Your task to perform on an android device: toggle show notifications on the lock screen Image 0: 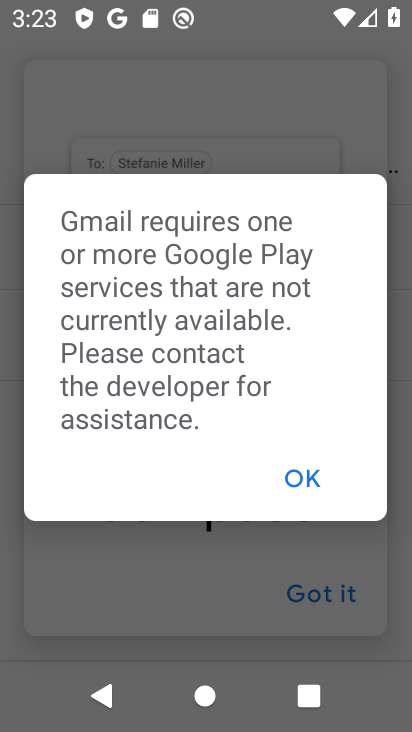
Step 0: click (292, 479)
Your task to perform on an android device: toggle show notifications on the lock screen Image 1: 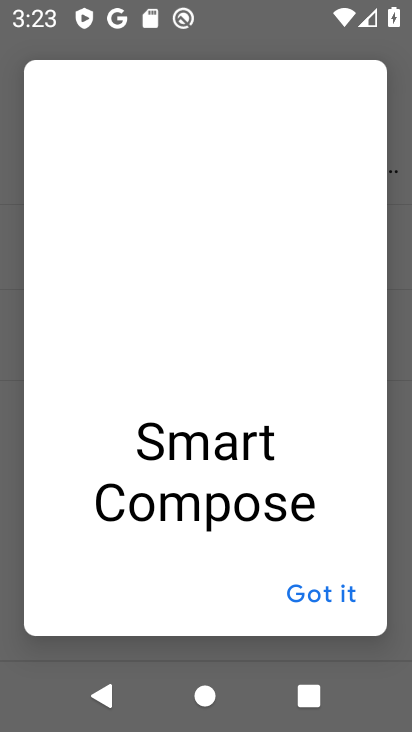
Step 1: press back button
Your task to perform on an android device: toggle show notifications on the lock screen Image 2: 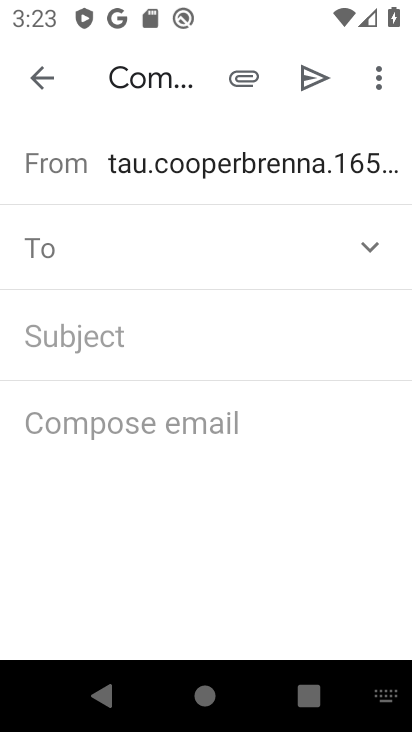
Step 2: press home button
Your task to perform on an android device: toggle show notifications on the lock screen Image 3: 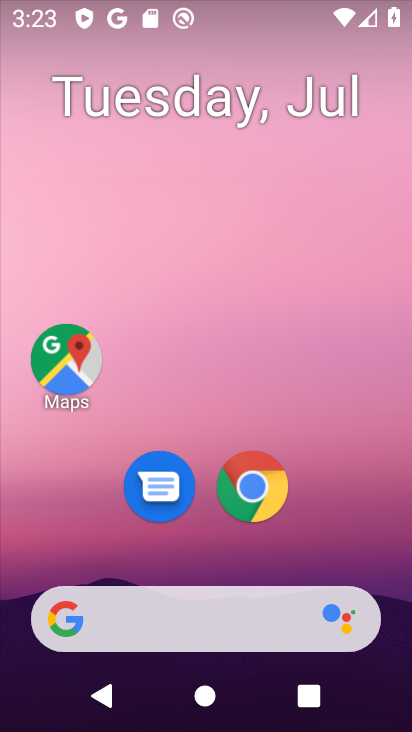
Step 3: drag from (145, 574) to (266, 5)
Your task to perform on an android device: toggle show notifications on the lock screen Image 4: 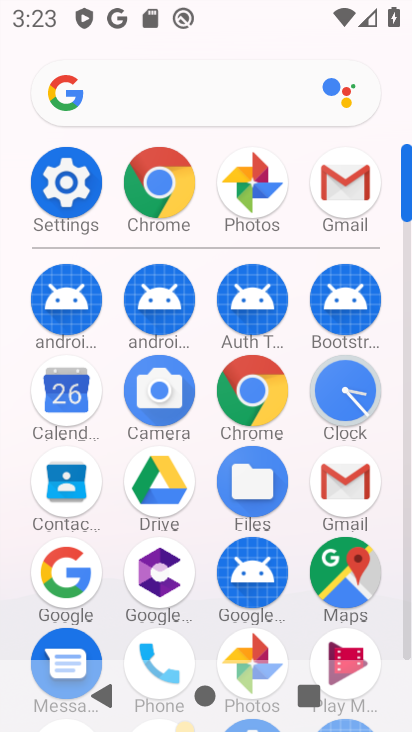
Step 4: click (78, 186)
Your task to perform on an android device: toggle show notifications on the lock screen Image 5: 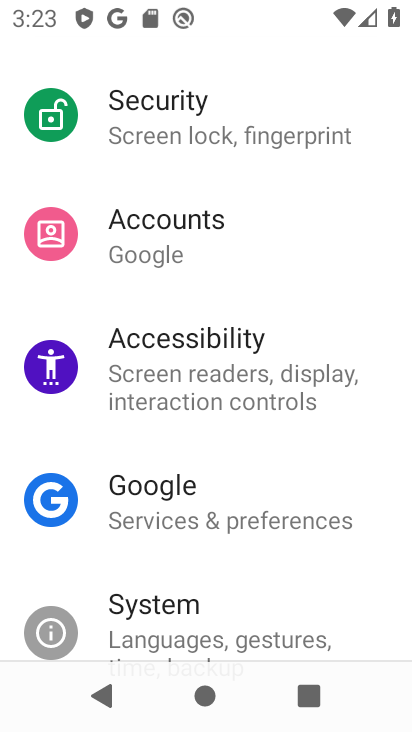
Step 5: drag from (253, 195) to (230, 595)
Your task to perform on an android device: toggle show notifications on the lock screen Image 6: 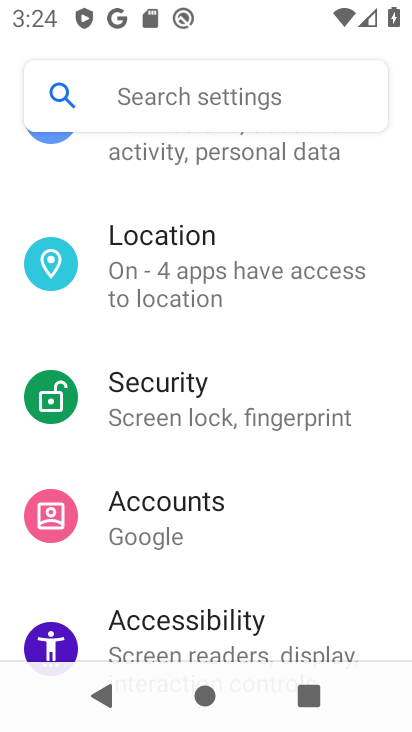
Step 6: drag from (242, 213) to (211, 596)
Your task to perform on an android device: toggle show notifications on the lock screen Image 7: 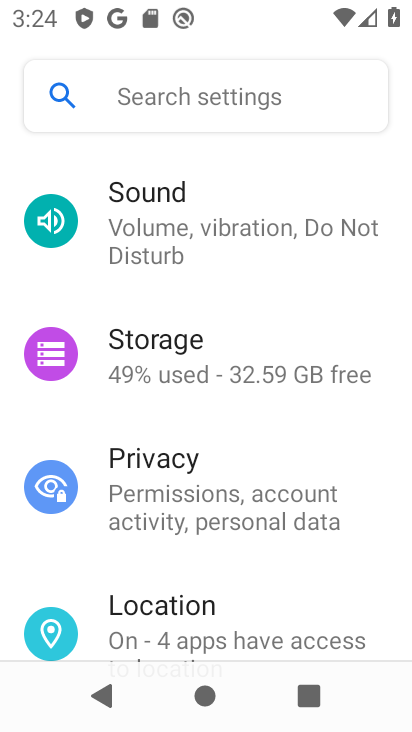
Step 7: drag from (270, 173) to (185, 628)
Your task to perform on an android device: toggle show notifications on the lock screen Image 8: 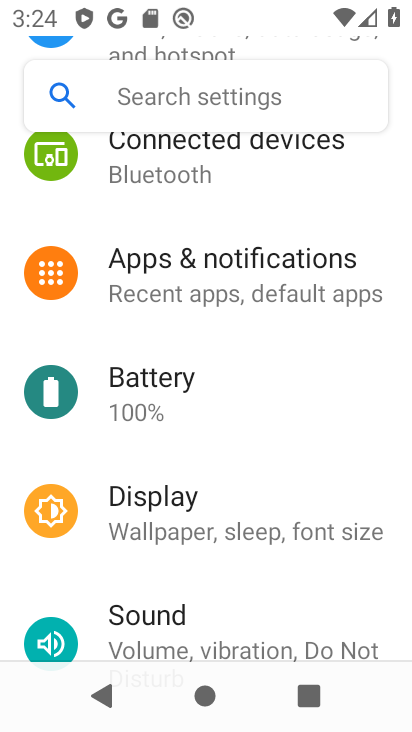
Step 8: click (225, 284)
Your task to perform on an android device: toggle show notifications on the lock screen Image 9: 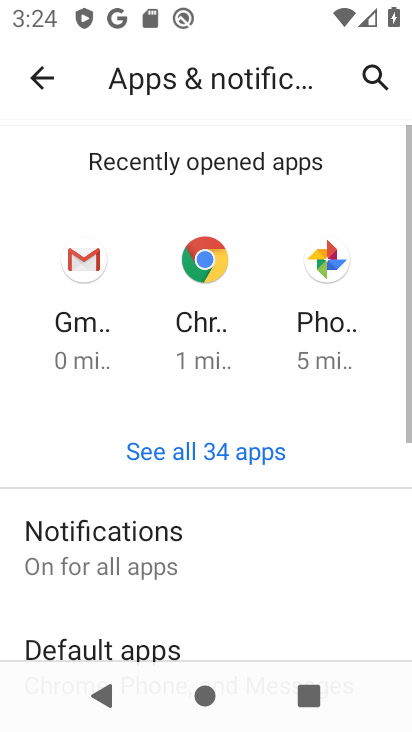
Step 9: click (129, 532)
Your task to perform on an android device: toggle show notifications on the lock screen Image 10: 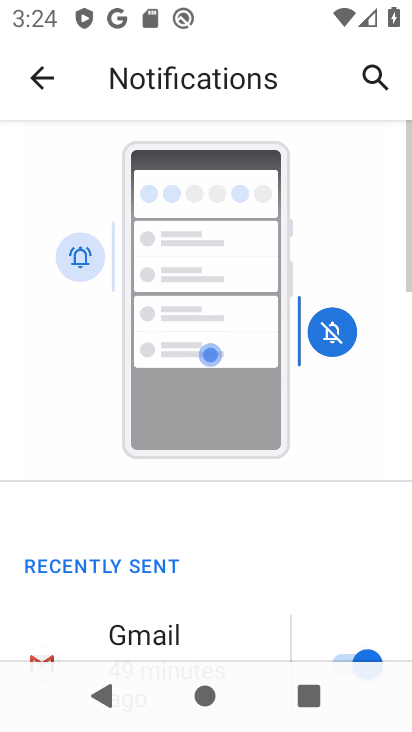
Step 10: drag from (107, 618) to (247, 192)
Your task to perform on an android device: toggle show notifications on the lock screen Image 11: 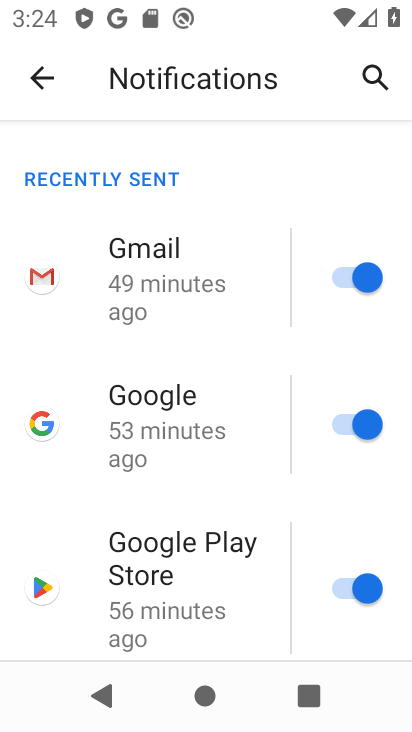
Step 11: drag from (175, 601) to (270, 42)
Your task to perform on an android device: toggle show notifications on the lock screen Image 12: 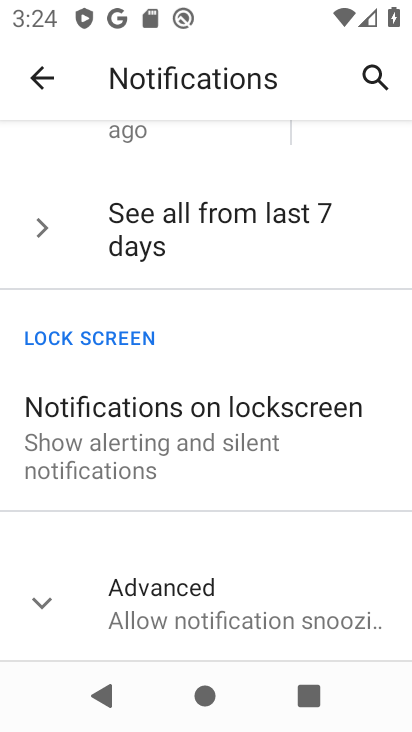
Step 12: click (151, 424)
Your task to perform on an android device: toggle show notifications on the lock screen Image 13: 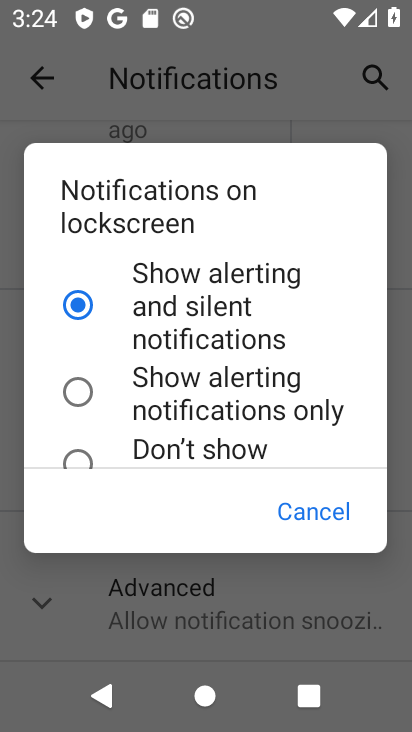
Step 13: task complete